Your task to perform on an android device: Go to Yahoo.com Image 0: 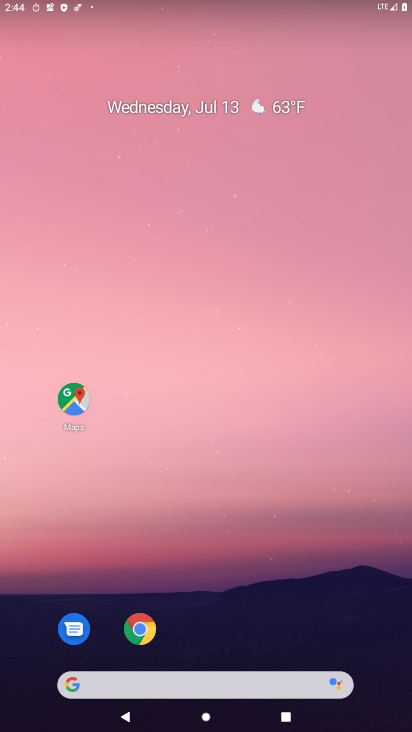
Step 0: drag from (208, 632) to (65, 7)
Your task to perform on an android device: Go to Yahoo.com Image 1: 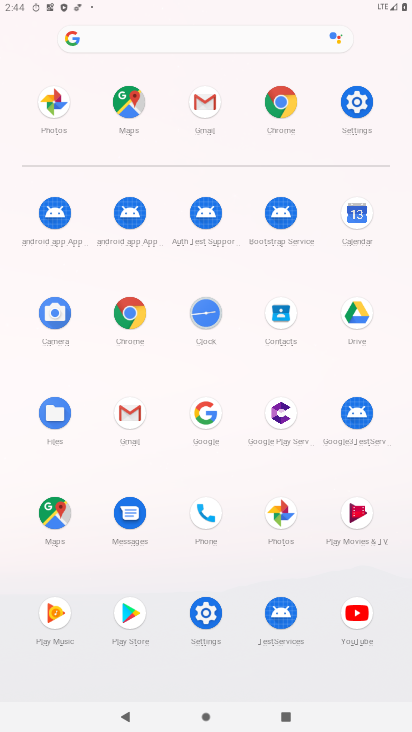
Step 1: click (130, 311)
Your task to perform on an android device: Go to Yahoo.com Image 2: 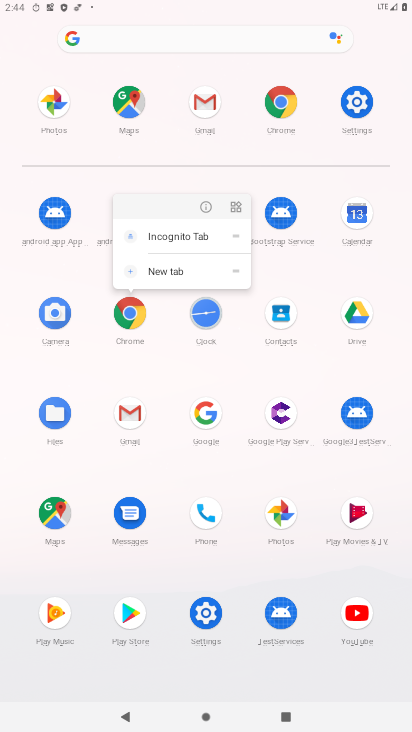
Step 2: click (205, 209)
Your task to perform on an android device: Go to Yahoo.com Image 3: 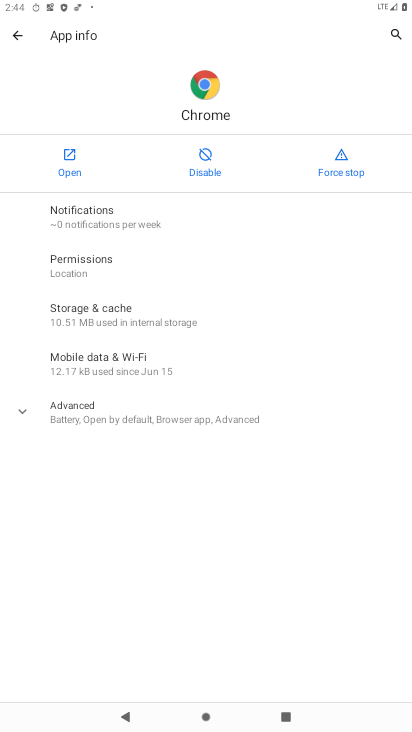
Step 3: click (75, 165)
Your task to perform on an android device: Go to Yahoo.com Image 4: 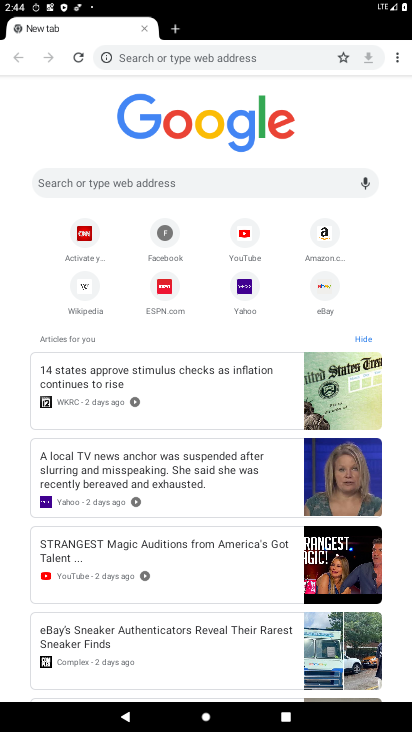
Step 4: click (248, 292)
Your task to perform on an android device: Go to Yahoo.com Image 5: 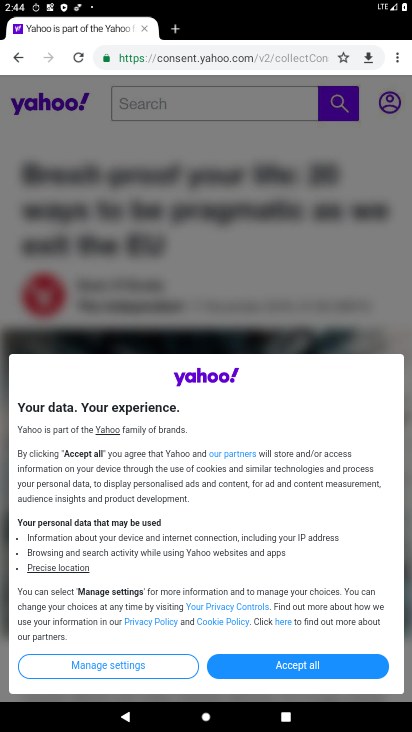
Step 5: task complete